Your task to perform on an android device: see tabs open on other devices in the chrome app Image 0: 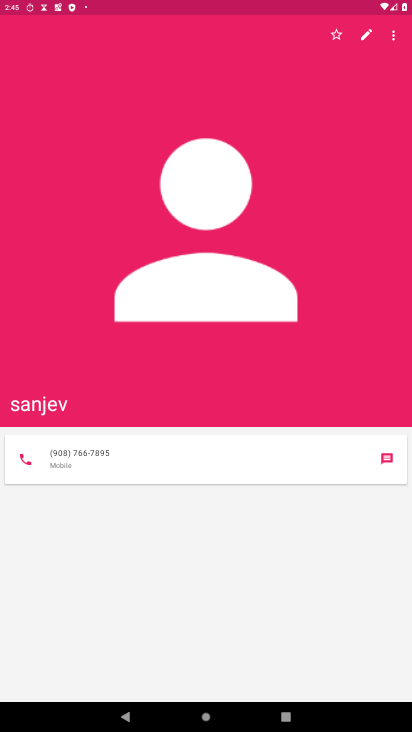
Step 0: press home button
Your task to perform on an android device: see tabs open on other devices in the chrome app Image 1: 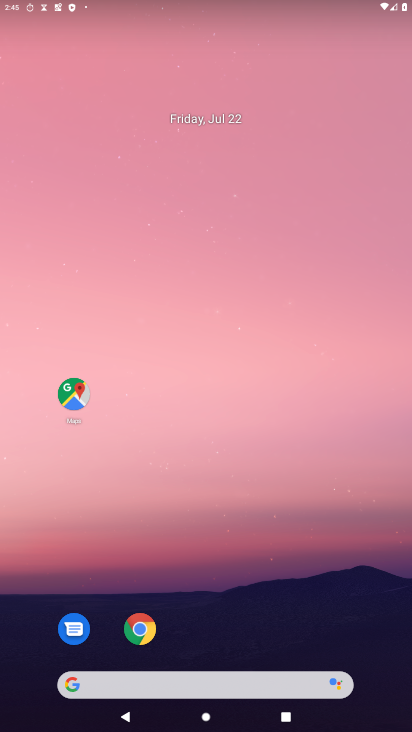
Step 1: drag from (218, 689) to (349, 8)
Your task to perform on an android device: see tabs open on other devices in the chrome app Image 2: 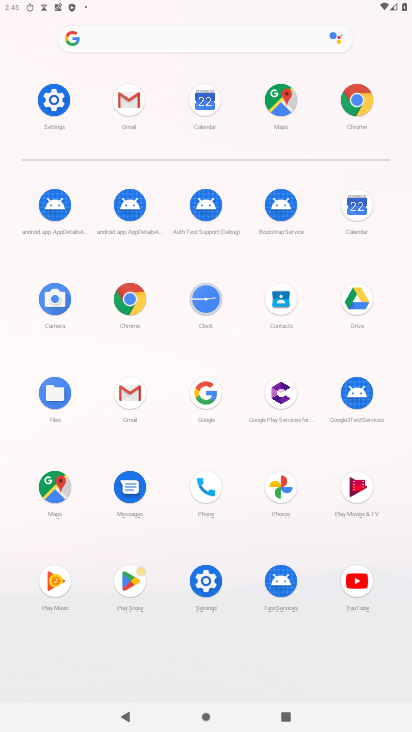
Step 2: click (145, 296)
Your task to perform on an android device: see tabs open on other devices in the chrome app Image 3: 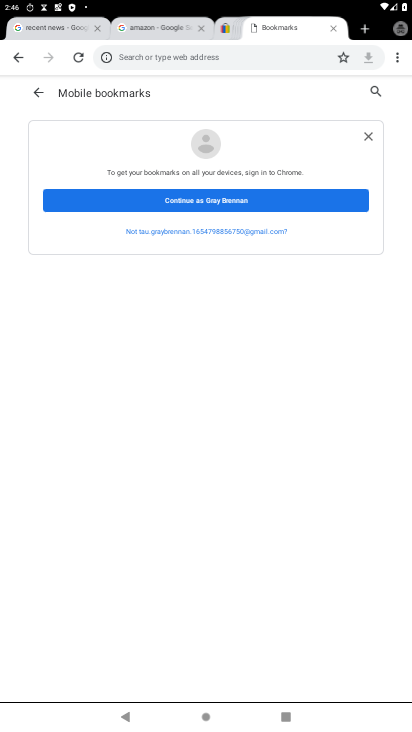
Step 3: task complete